Your task to perform on an android device: Go to location settings Image 0: 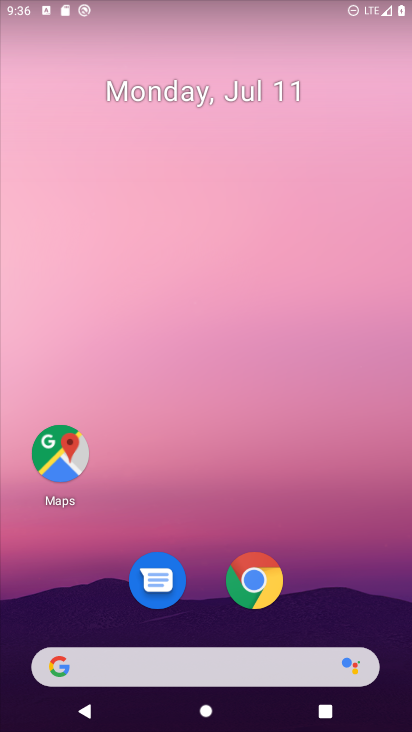
Step 0: drag from (300, 493) to (262, 83)
Your task to perform on an android device: Go to location settings Image 1: 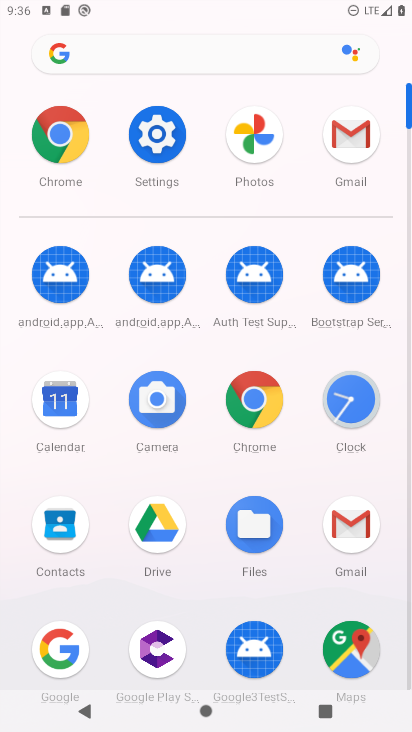
Step 1: click (153, 135)
Your task to perform on an android device: Go to location settings Image 2: 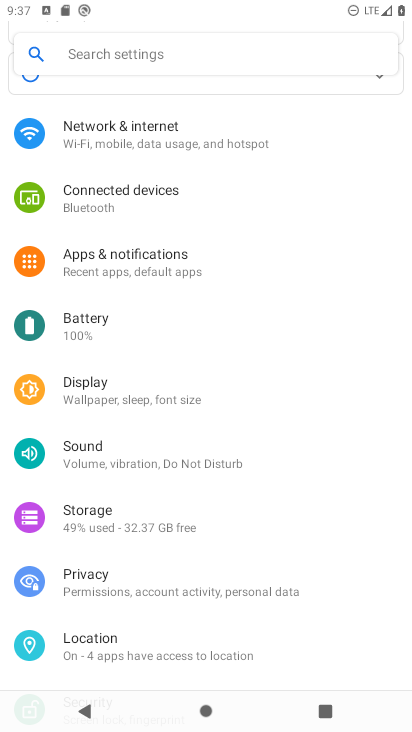
Step 2: click (139, 654)
Your task to perform on an android device: Go to location settings Image 3: 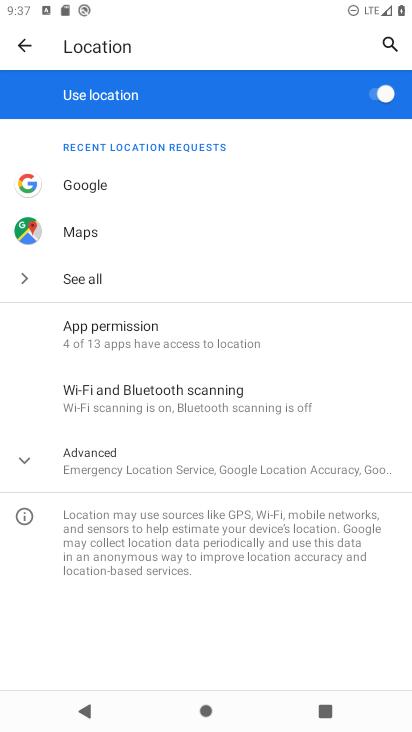
Step 3: task complete